Your task to perform on an android device: check out phone information Image 0: 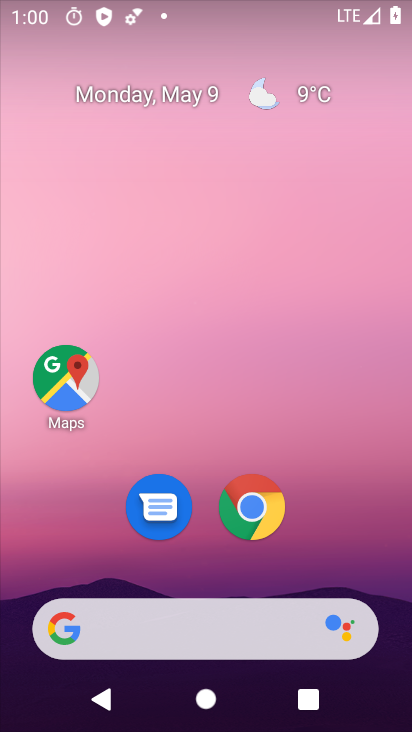
Step 0: drag from (226, 728) to (204, 68)
Your task to perform on an android device: check out phone information Image 1: 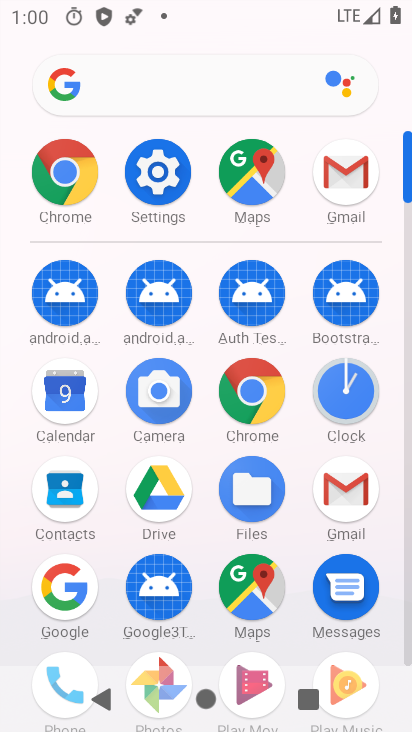
Step 1: click (162, 172)
Your task to perform on an android device: check out phone information Image 2: 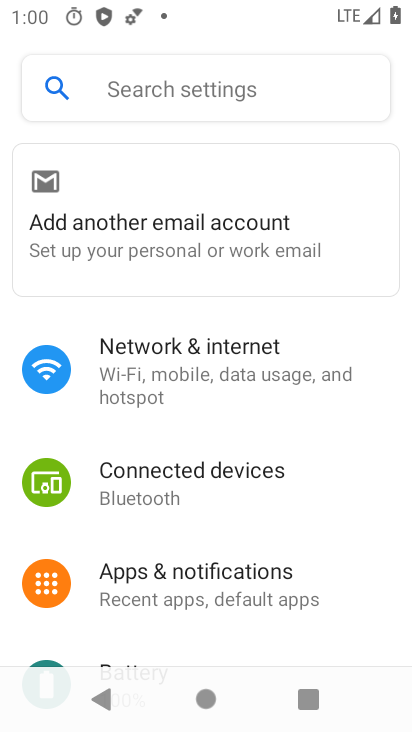
Step 2: drag from (229, 644) to (250, 247)
Your task to perform on an android device: check out phone information Image 3: 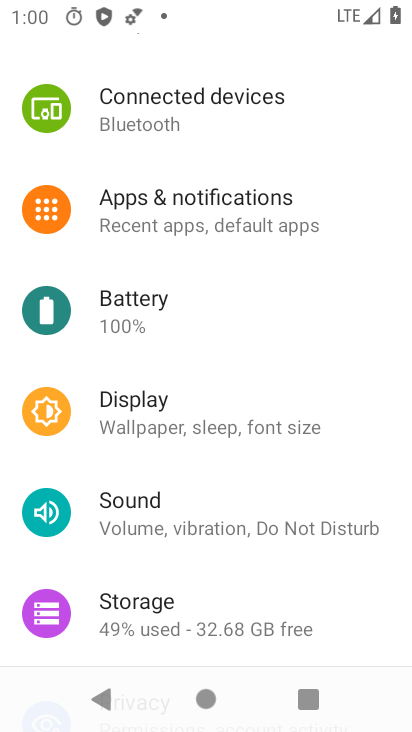
Step 3: drag from (241, 641) to (240, 207)
Your task to perform on an android device: check out phone information Image 4: 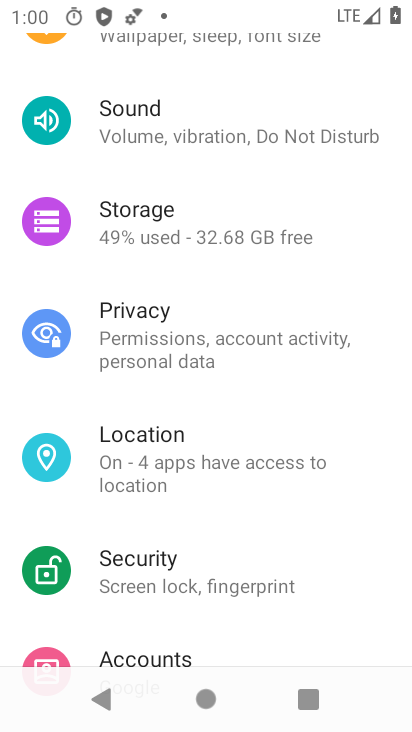
Step 4: drag from (205, 653) to (214, 217)
Your task to perform on an android device: check out phone information Image 5: 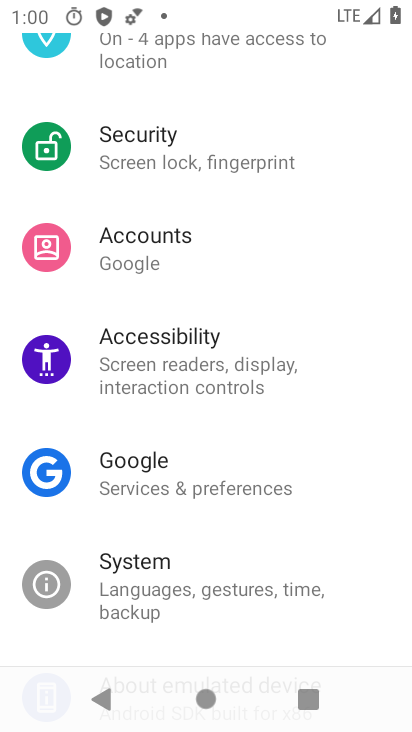
Step 5: drag from (189, 640) to (188, 208)
Your task to perform on an android device: check out phone information Image 6: 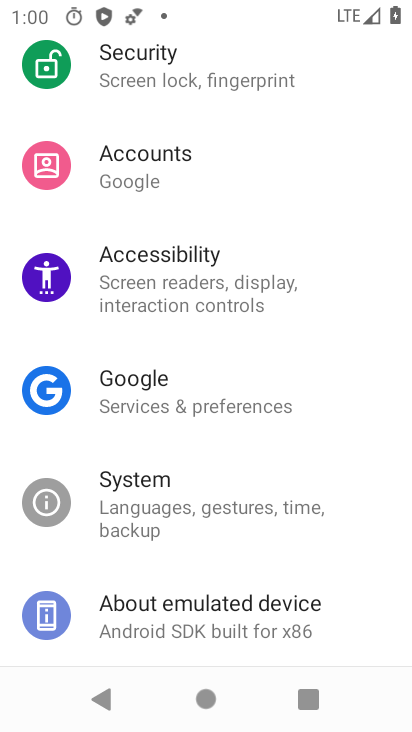
Step 6: click (182, 609)
Your task to perform on an android device: check out phone information Image 7: 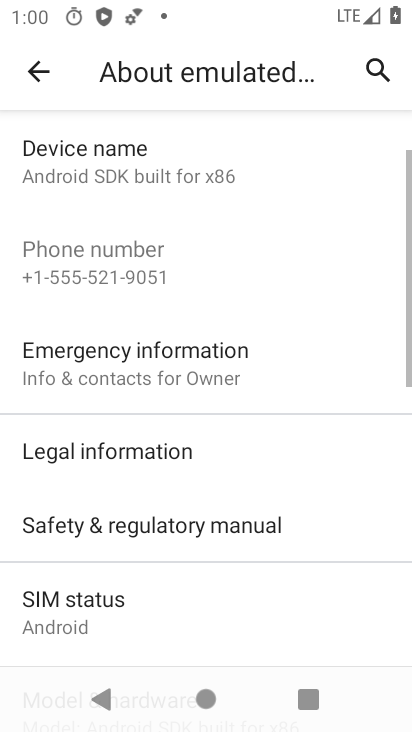
Step 7: task complete